Your task to perform on an android device: Turn off the flashlight Image 0: 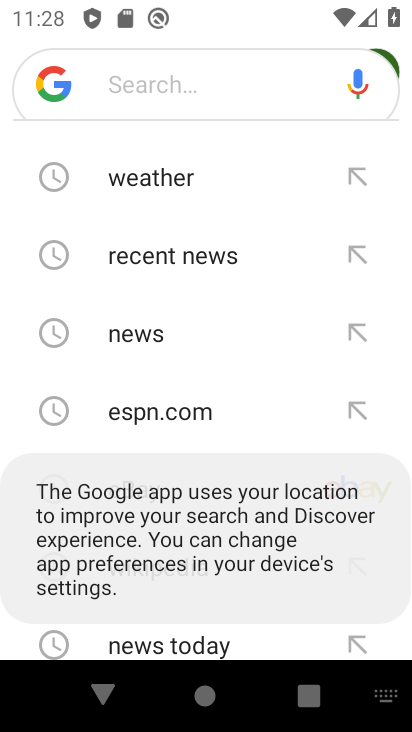
Step 0: press home button
Your task to perform on an android device: Turn off the flashlight Image 1: 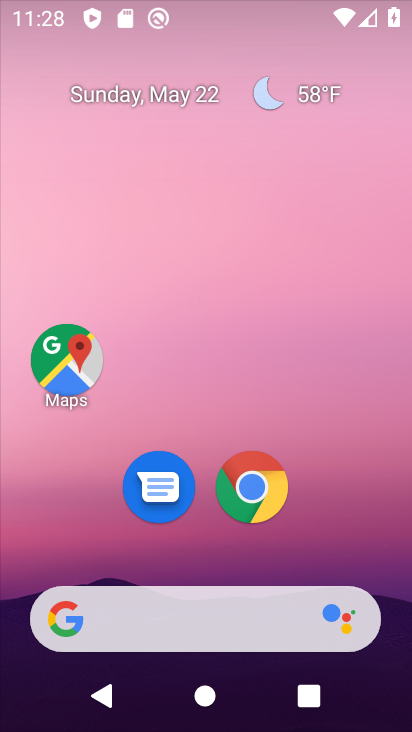
Step 1: drag from (367, 518) to (343, 139)
Your task to perform on an android device: Turn off the flashlight Image 2: 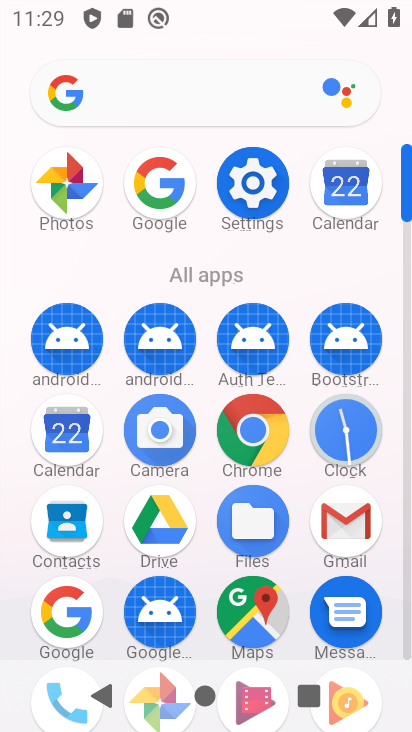
Step 2: click (230, 205)
Your task to perform on an android device: Turn off the flashlight Image 3: 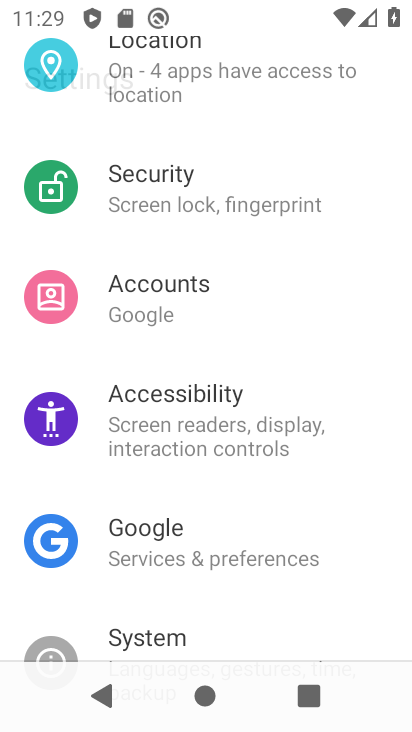
Step 3: task complete